Your task to perform on an android device: turn off notifications in google photos Image 0: 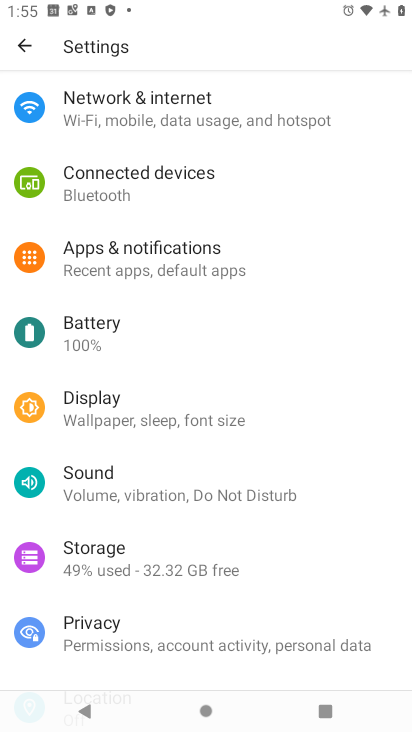
Step 0: press home button
Your task to perform on an android device: turn off notifications in google photos Image 1: 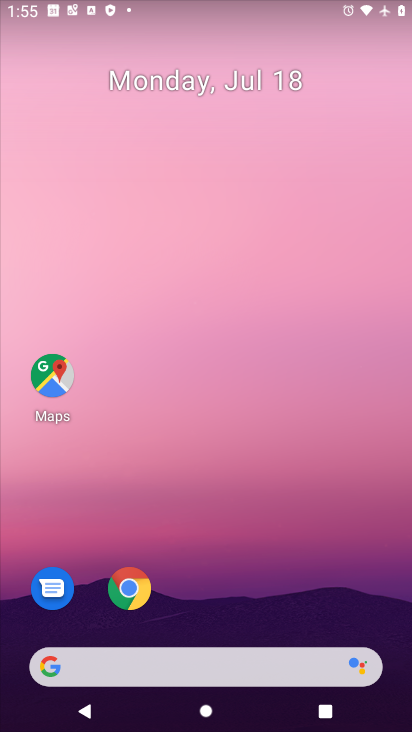
Step 1: drag from (250, 592) to (250, 126)
Your task to perform on an android device: turn off notifications in google photos Image 2: 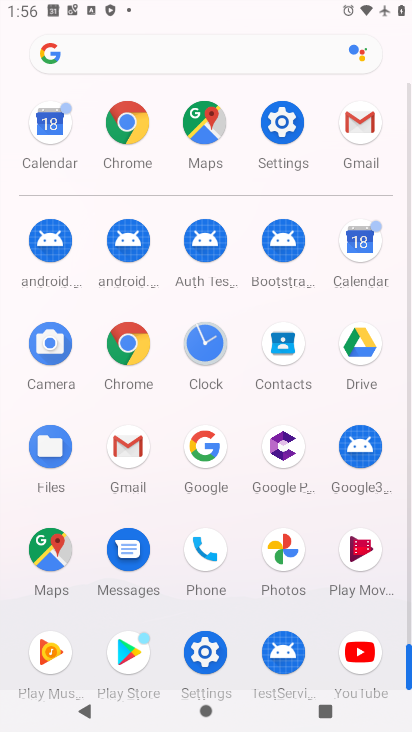
Step 2: click (290, 552)
Your task to perform on an android device: turn off notifications in google photos Image 3: 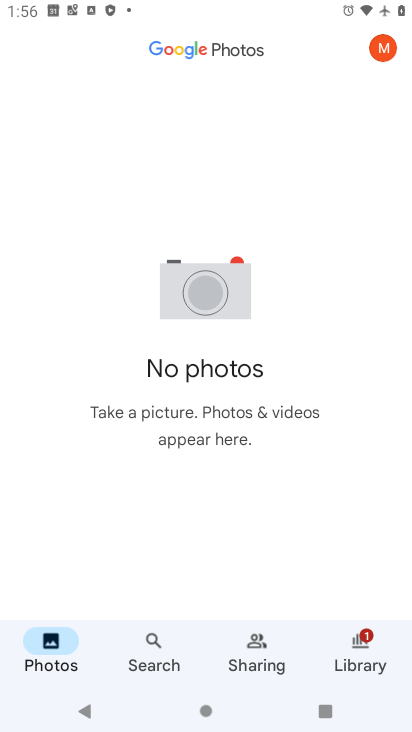
Step 3: click (376, 56)
Your task to perform on an android device: turn off notifications in google photos Image 4: 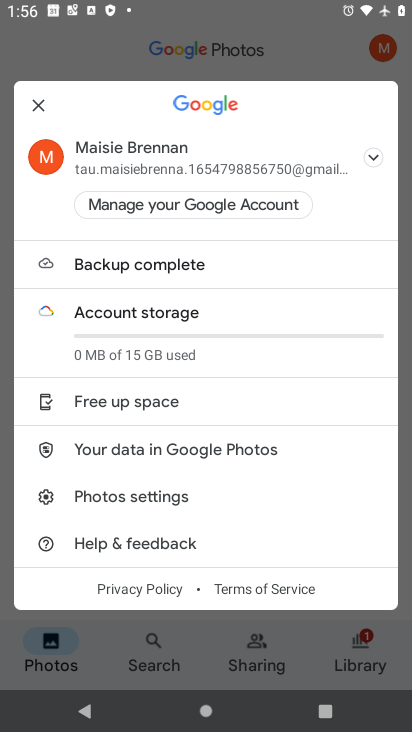
Step 4: click (152, 490)
Your task to perform on an android device: turn off notifications in google photos Image 5: 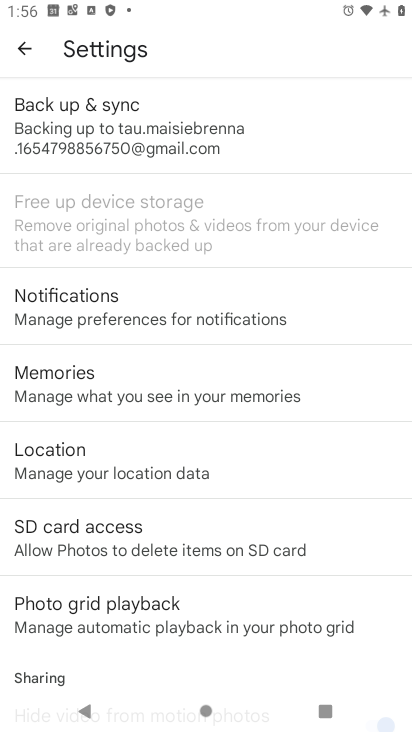
Step 5: click (192, 316)
Your task to perform on an android device: turn off notifications in google photos Image 6: 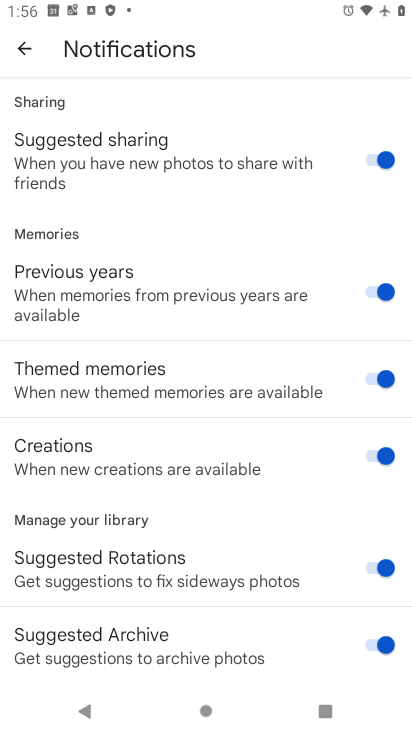
Step 6: drag from (151, 560) to (204, 364)
Your task to perform on an android device: turn off notifications in google photos Image 7: 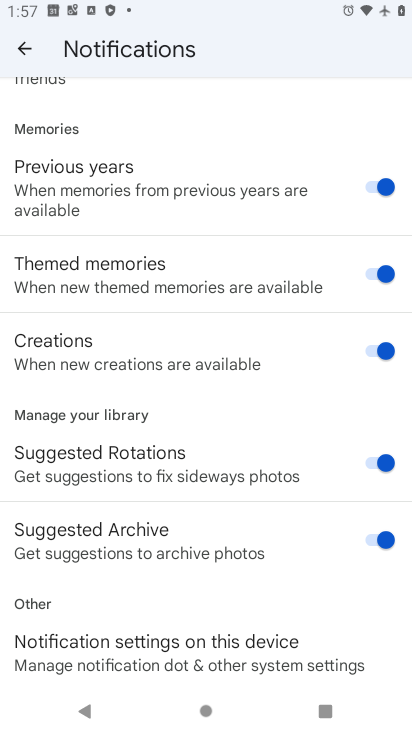
Step 7: drag from (178, 203) to (226, 91)
Your task to perform on an android device: turn off notifications in google photos Image 8: 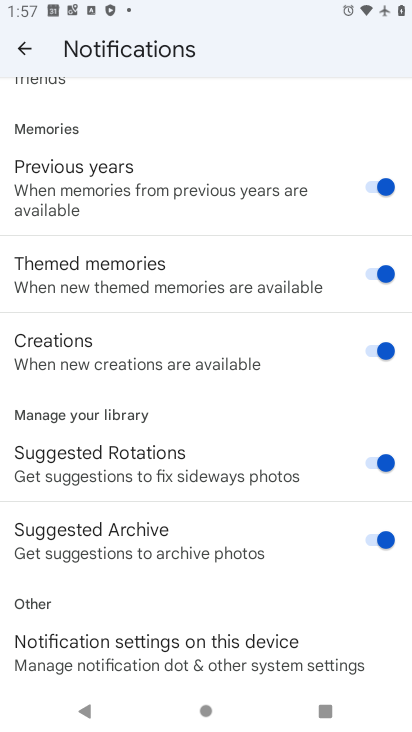
Step 8: click (194, 650)
Your task to perform on an android device: turn off notifications in google photos Image 9: 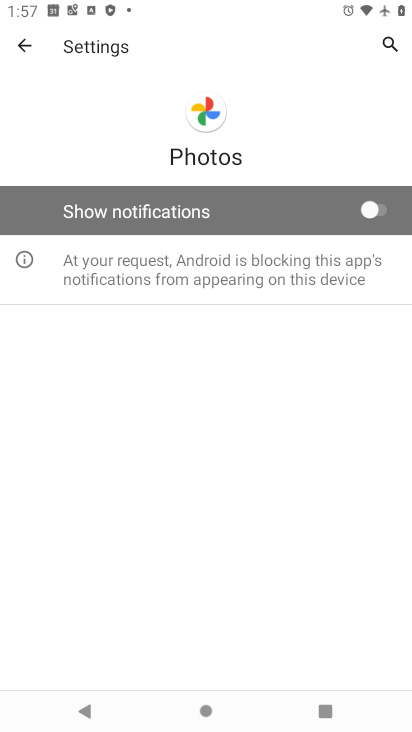
Step 9: task complete